Your task to perform on an android device: star an email in the gmail app Image 0: 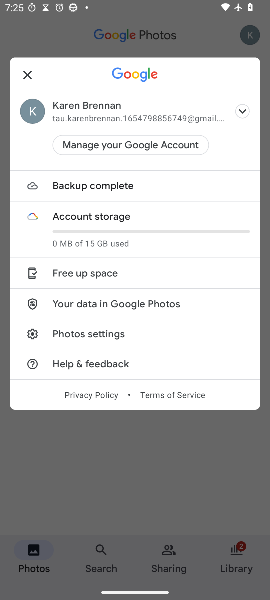
Step 0: press home button
Your task to perform on an android device: star an email in the gmail app Image 1: 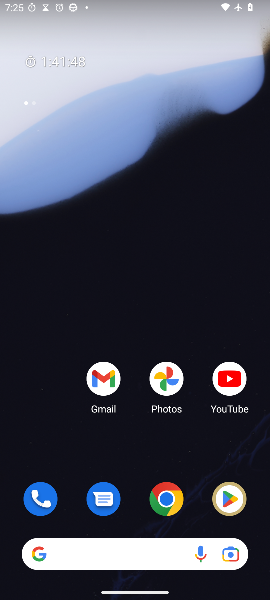
Step 1: drag from (168, 491) to (152, 62)
Your task to perform on an android device: star an email in the gmail app Image 2: 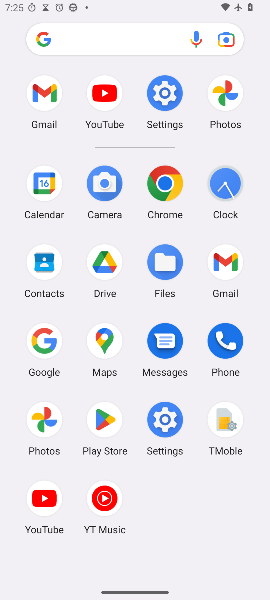
Step 2: click (225, 263)
Your task to perform on an android device: star an email in the gmail app Image 3: 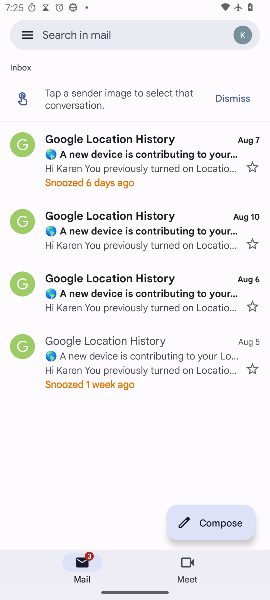
Step 3: click (253, 246)
Your task to perform on an android device: star an email in the gmail app Image 4: 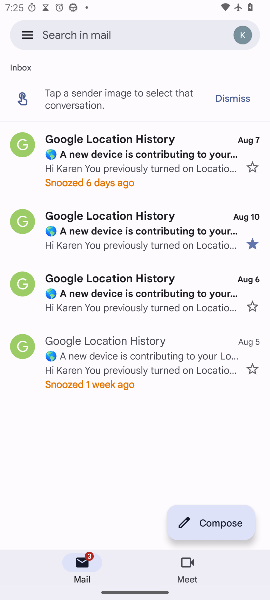
Step 4: task complete